Your task to perform on an android device: Search for a new lawnmower on Lowes. Image 0: 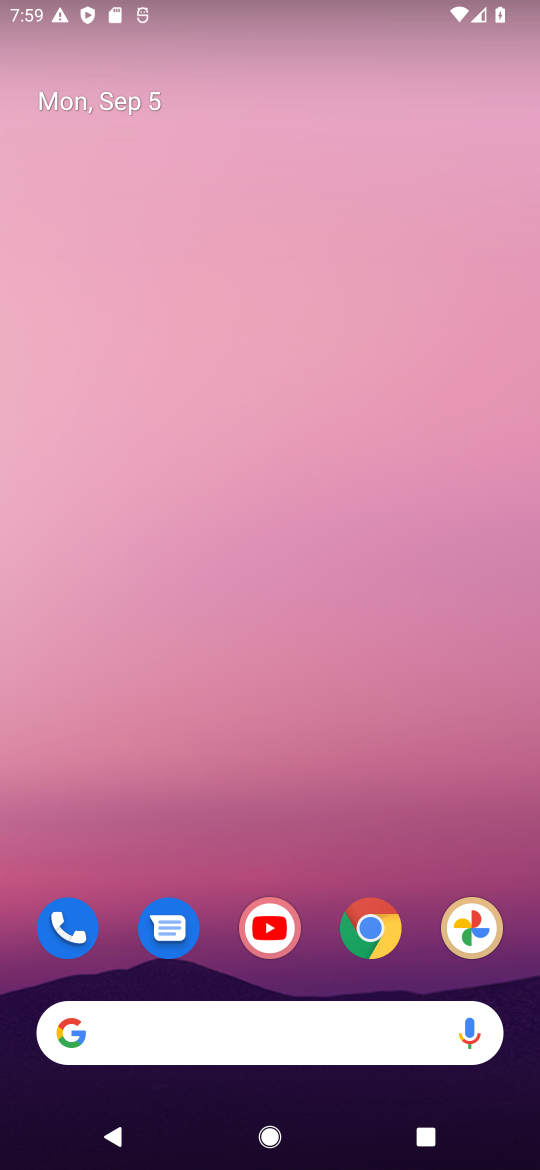
Step 0: click (370, 939)
Your task to perform on an android device: Search for a new lawnmower on Lowes. Image 1: 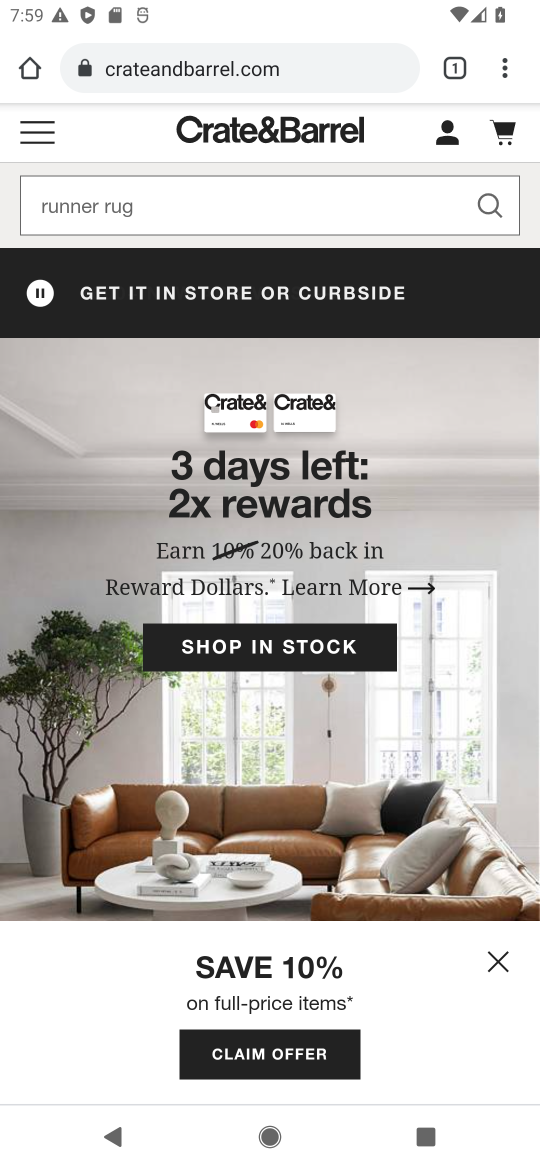
Step 1: click (239, 69)
Your task to perform on an android device: Search for a new lawnmower on Lowes. Image 2: 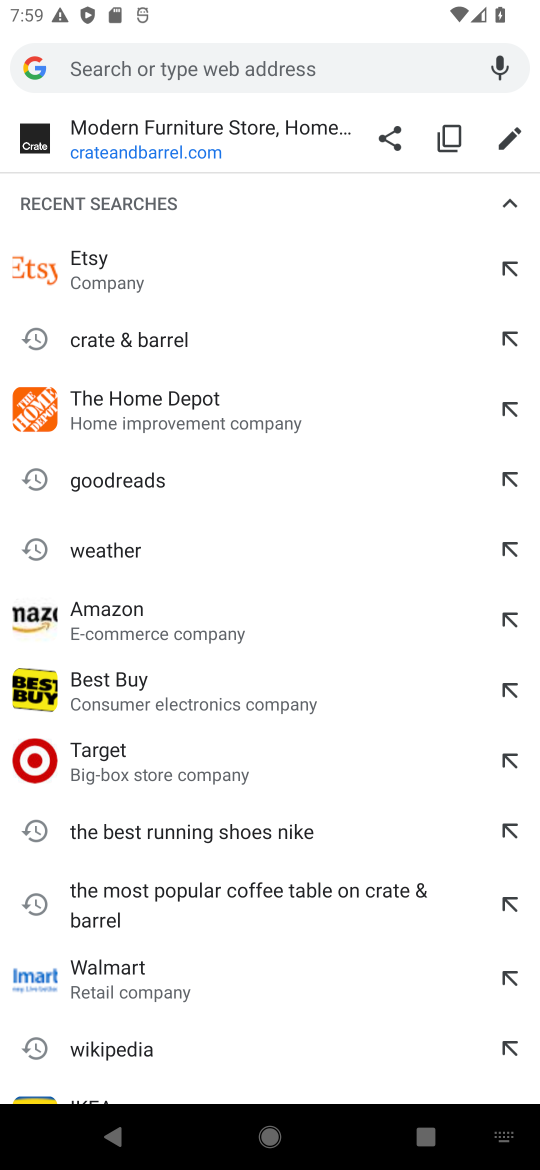
Step 2: type "Lowes"
Your task to perform on an android device: Search for a new lawnmower on Lowes. Image 3: 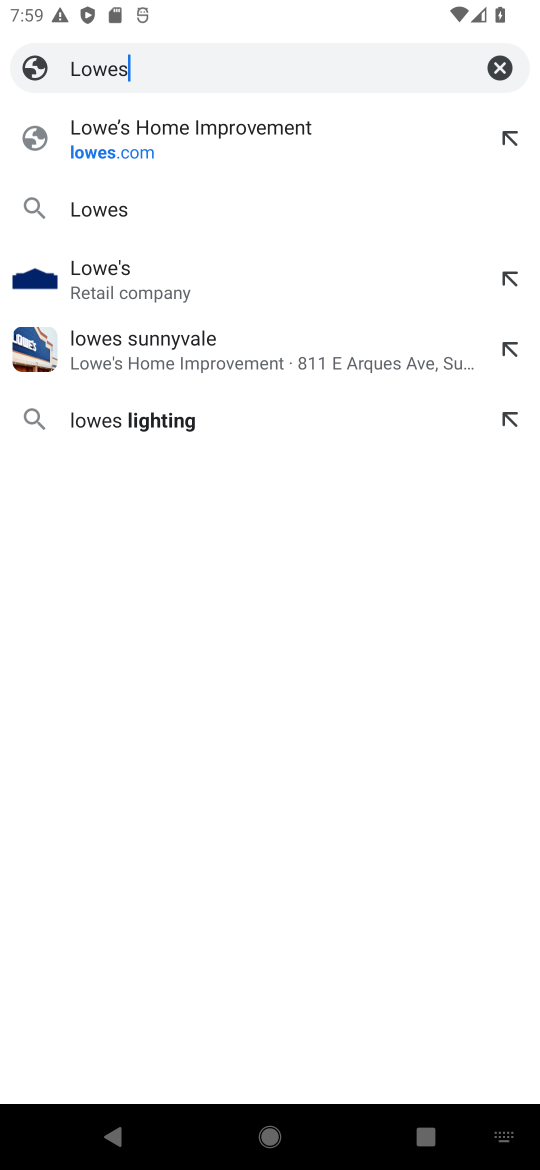
Step 3: click (134, 143)
Your task to perform on an android device: Search for a new lawnmower on Lowes. Image 4: 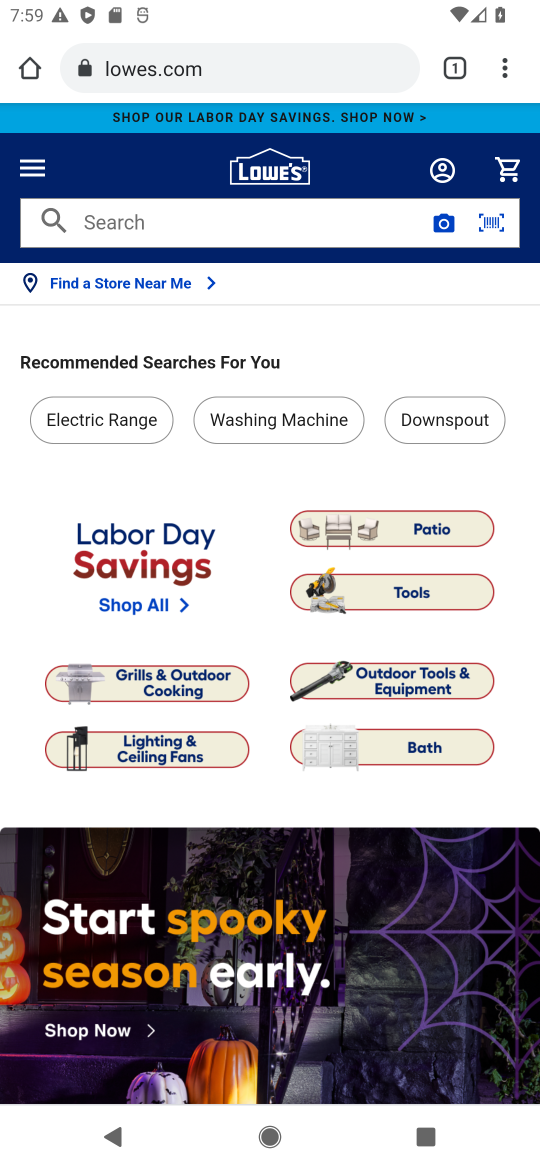
Step 4: click (291, 220)
Your task to perform on an android device: Search for a new lawnmower on Lowes. Image 5: 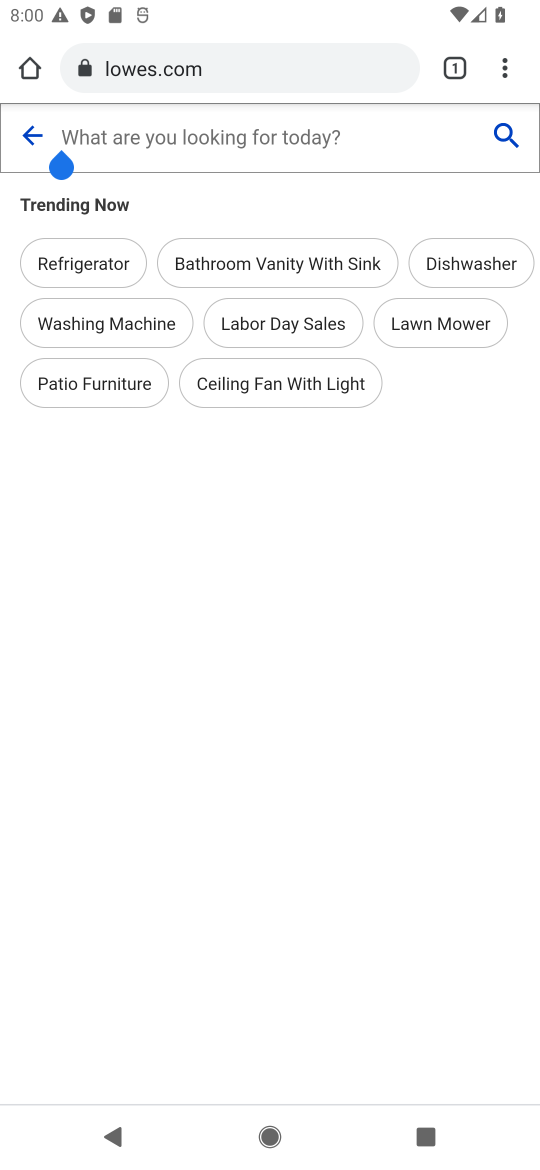
Step 5: type "new lawnmower"
Your task to perform on an android device: Search for a new lawnmower on Lowes. Image 6: 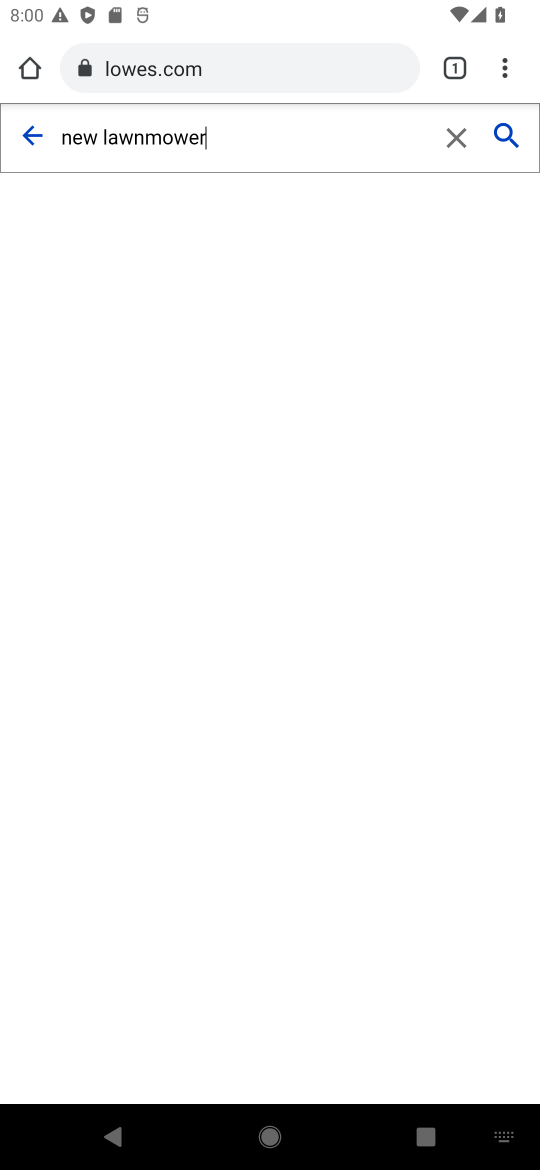
Step 6: click (501, 134)
Your task to perform on an android device: Search for a new lawnmower on Lowes. Image 7: 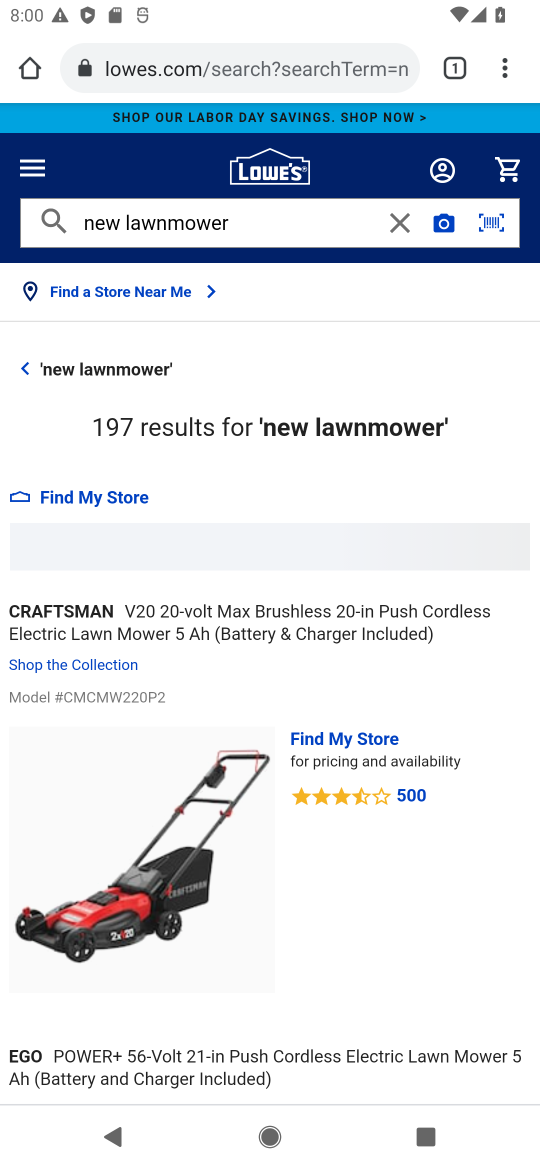
Step 7: task complete